Your task to perform on an android device: add a label to a message in the gmail app Image 0: 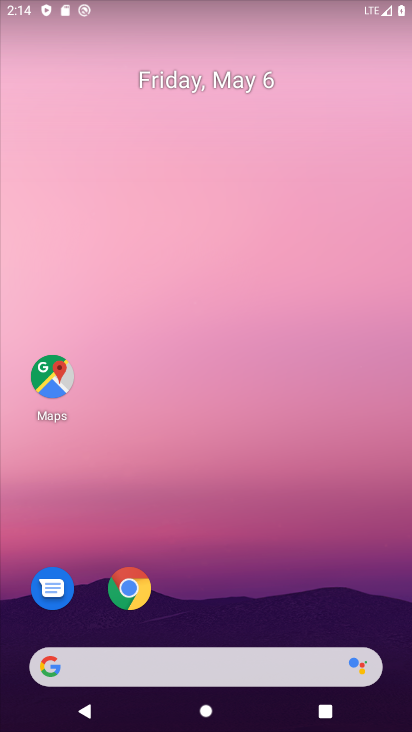
Step 0: drag from (357, 614) to (336, 135)
Your task to perform on an android device: add a label to a message in the gmail app Image 1: 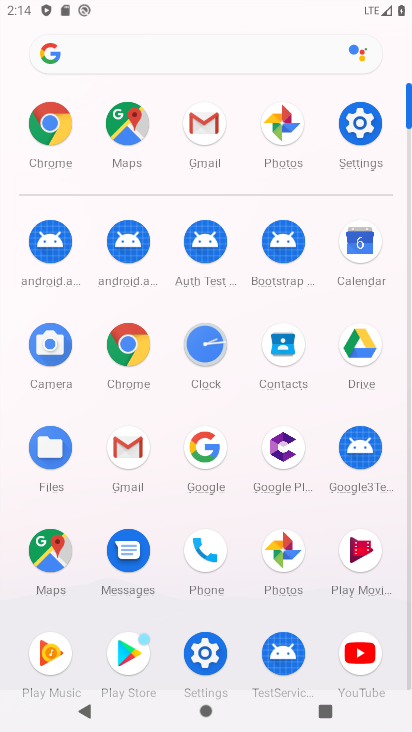
Step 1: click (142, 451)
Your task to perform on an android device: add a label to a message in the gmail app Image 2: 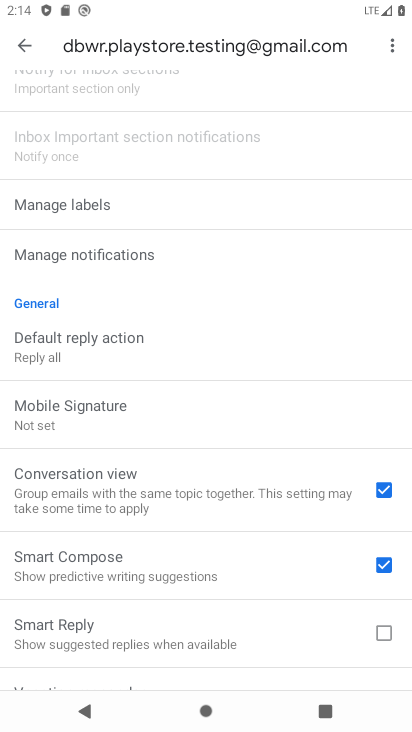
Step 2: click (28, 37)
Your task to perform on an android device: add a label to a message in the gmail app Image 3: 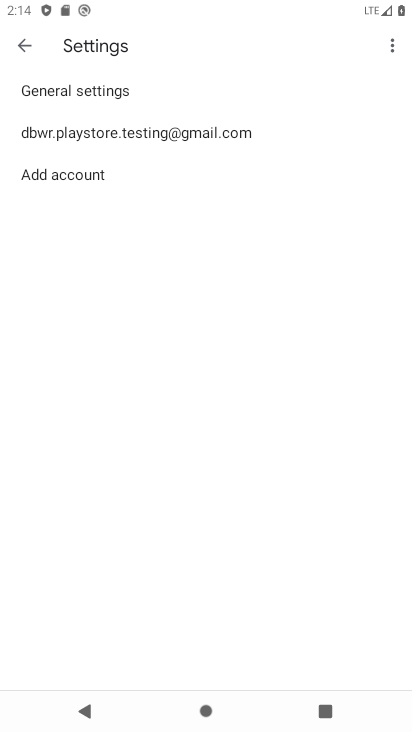
Step 3: click (28, 37)
Your task to perform on an android device: add a label to a message in the gmail app Image 4: 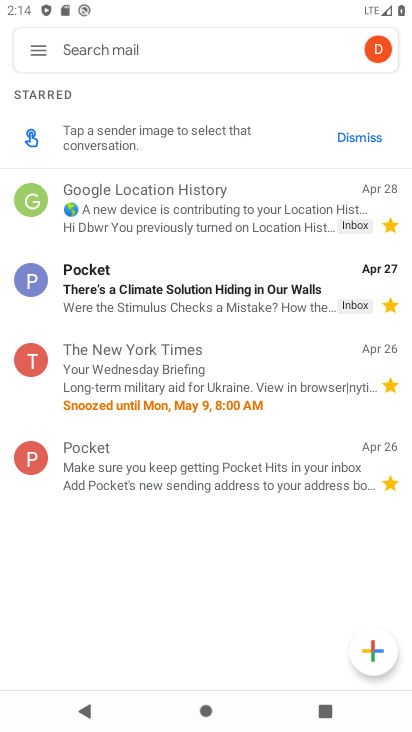
Step 4: click (34, 41)
Your task to perform on an android device: add a label to a message in the gmail app Image 5: 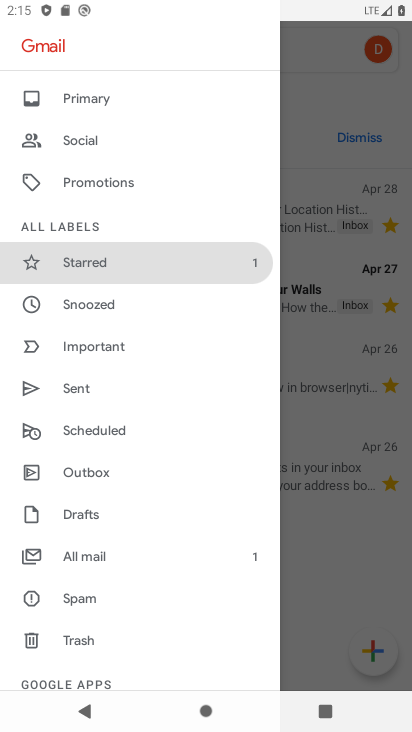
Step 5: click (101, 105)
Your task to perform on an android device: add a label to a message in the gmail app Image 6: 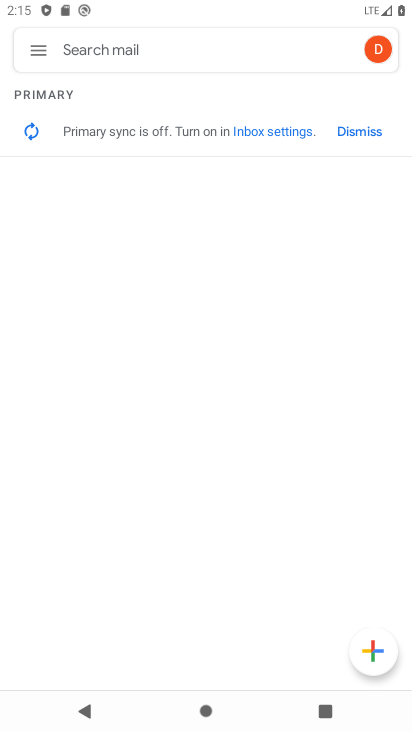
Step 6: click (31, 48)
Your task to perform on an android device: add a label to a message in the gmail app Image 7: 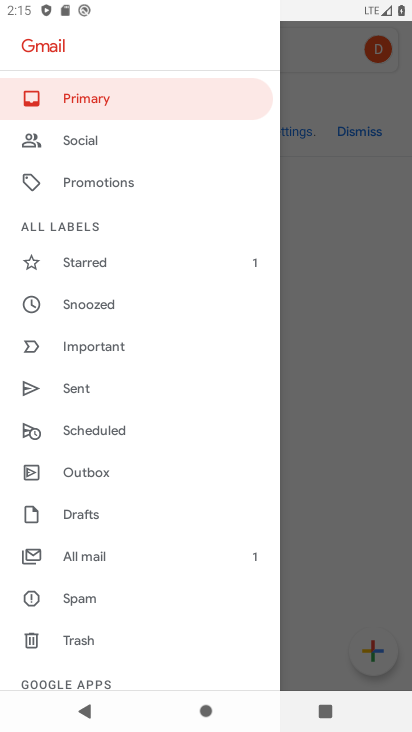
Step 7: click (97, 560)
Your task to perform on an android device: add a label to a message in the gmail app Image 8: 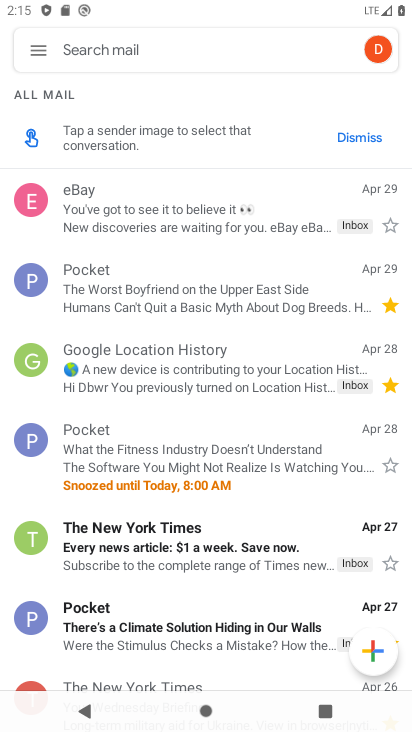
Step 8: click (393, 466)
Your task to perform on an android device: add a label to a message in the gmail app Image 9: 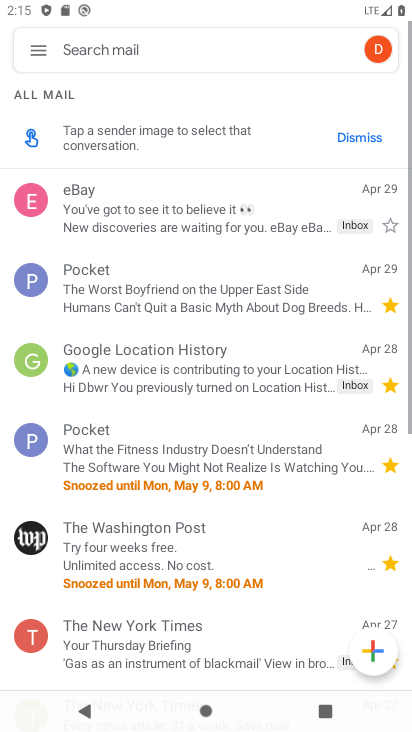
Step 9: task complete